Your task to perform on an android device: Go to privacy settings Image 0: 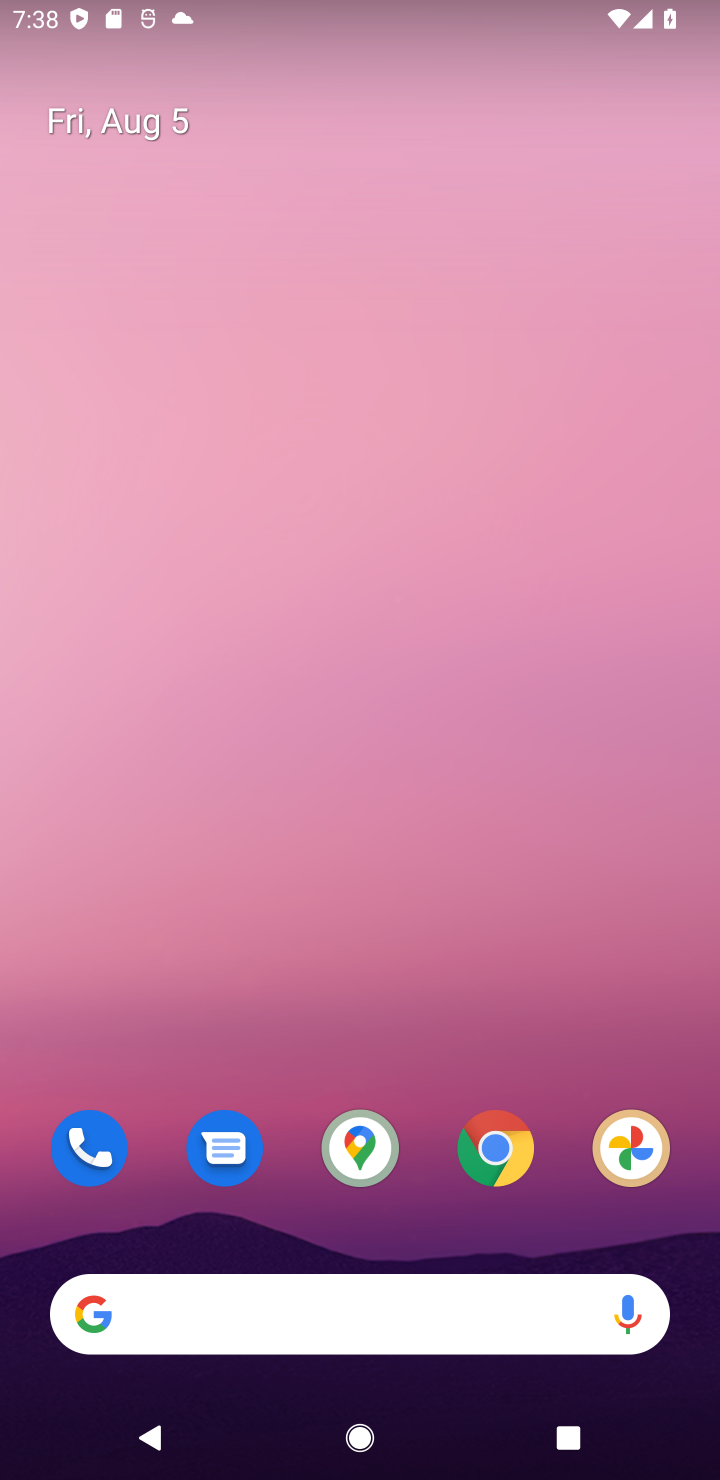
Step 0: drag from (438, 1241) to (378, 243)
Your task to perform on an android device: Go to privacy settings Image 1: 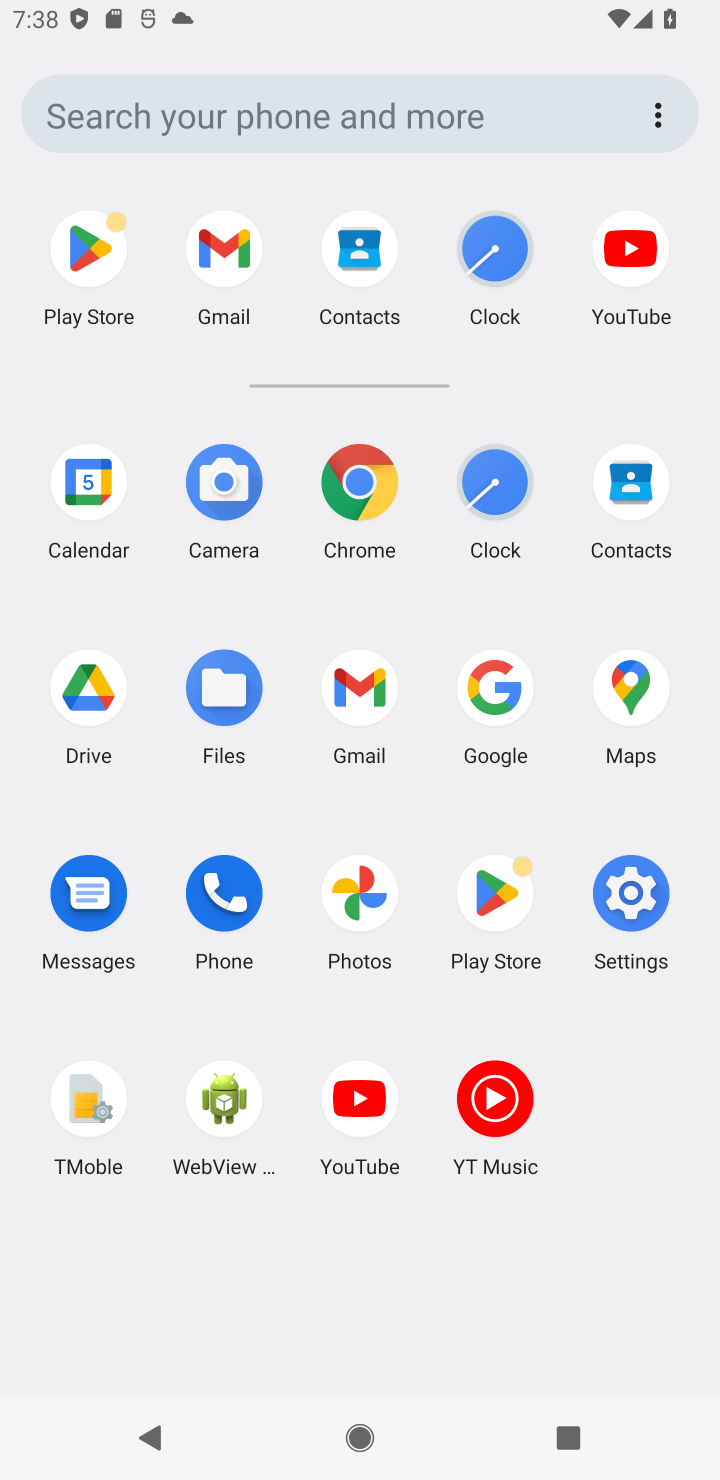
Step 1: click (645, 877)
Your task to perform on an android device: Go to privacy settings Image 2: 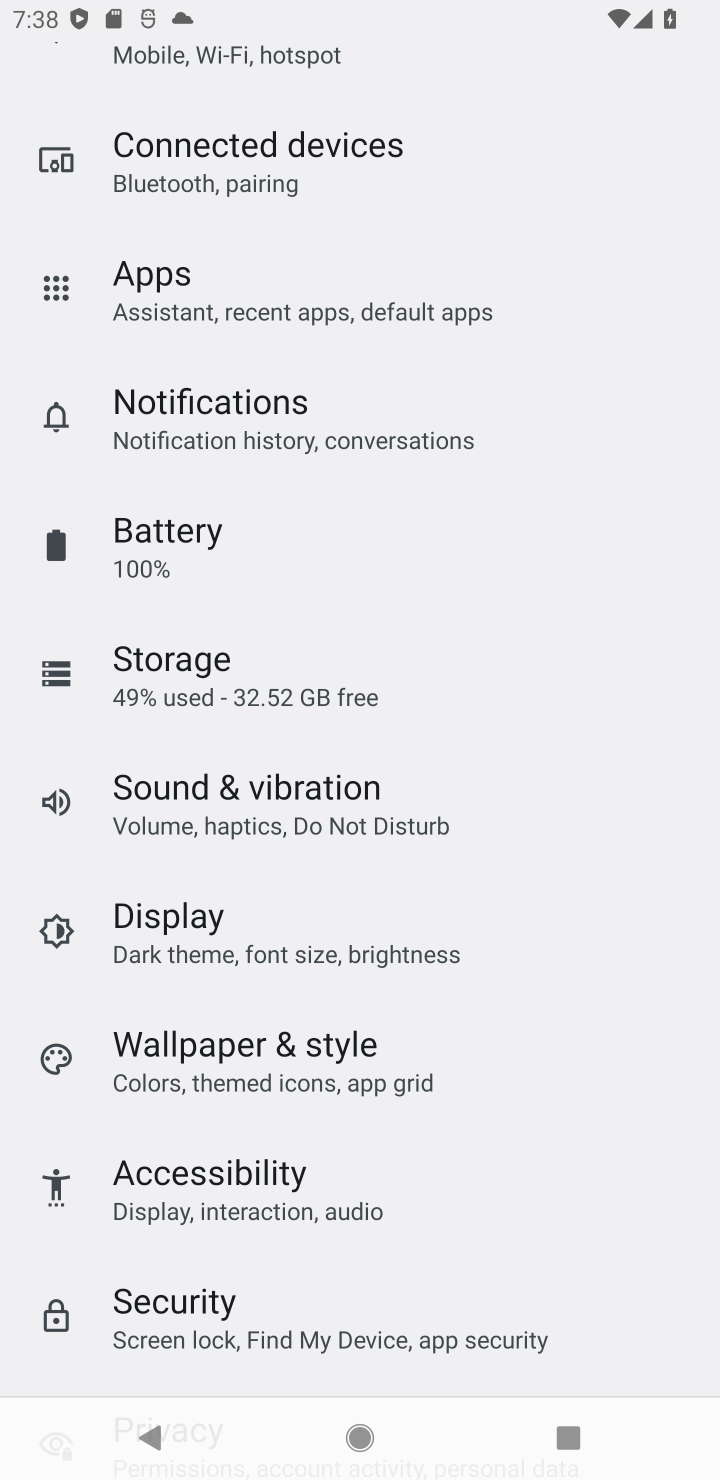
Step 2: click (645, 877)
Your task to perform on an android device: Go to privacy settings Image 3: 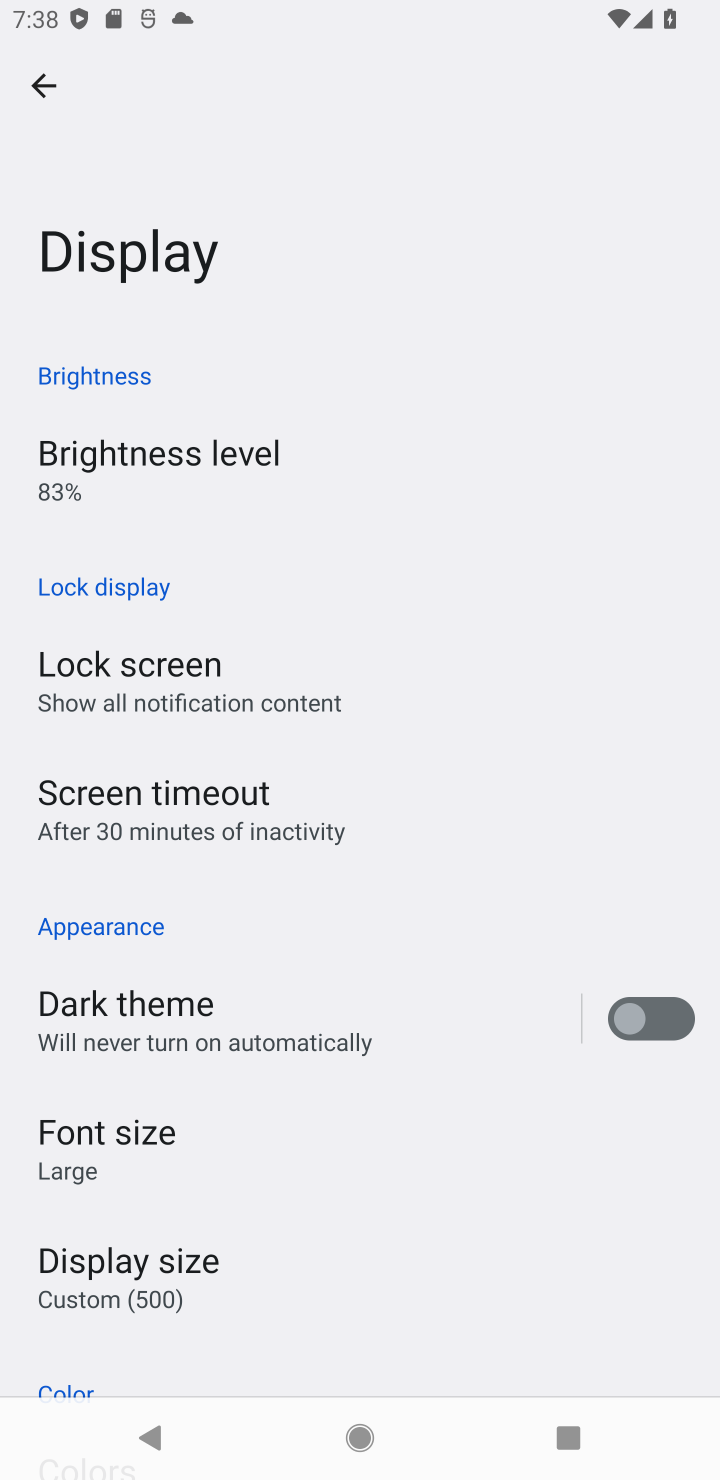
Step 3: task complete